Your task to perform on an android device: Go to Wikipedia Image 0: 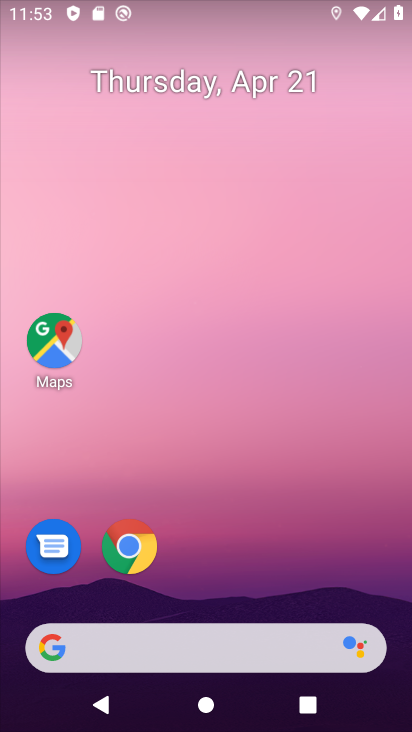
Step 0: drag from (223, 717) to (217, 242)
Your task to perform on an android device: Go to Wikipedia Image 1: 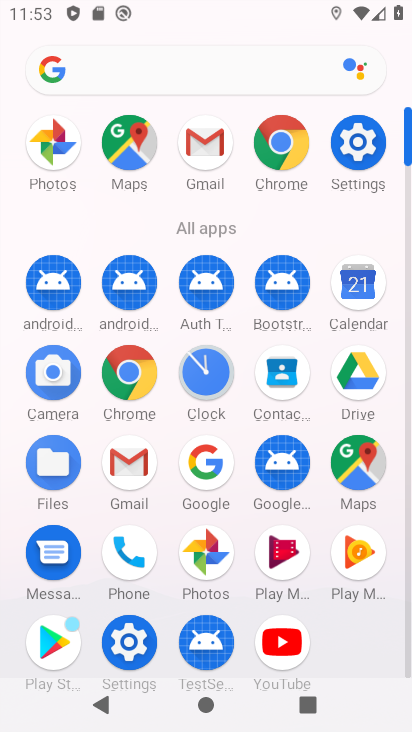
Step 1: click (287, 139)
Your task to perform on an android device: Go to Wikipedia Image 2: 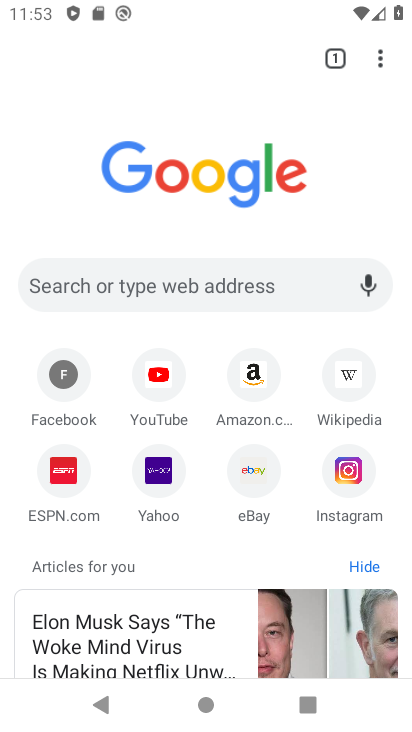
Step 2: click (352, 385)
Your task to perform on an android device: Go to Wikipedia Image 3: 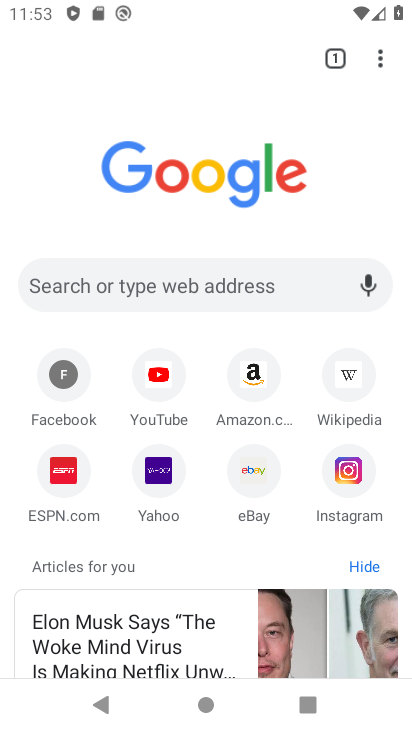
Step 3: click (352, 385)
Your task to perform on an android device: Go to Wikipedia Image 4: 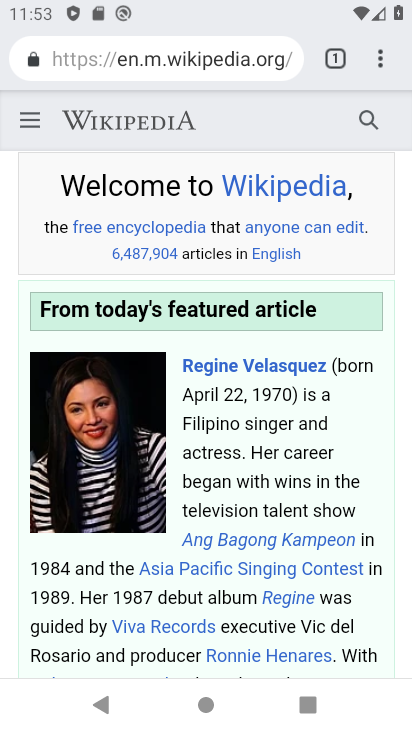
Step 4: task complete